Your task to perform on an android device: change the clock display to analog Image 0: 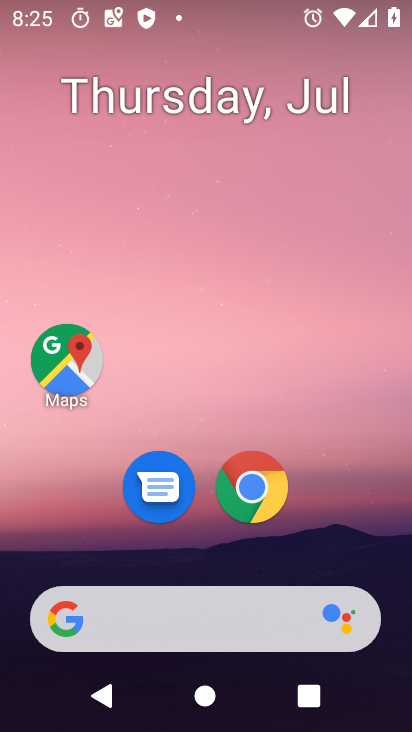
Step 0: drag from (263, 592) to (277, 251)
Your task to perform on an android device: change the clock display to analog Image 1: 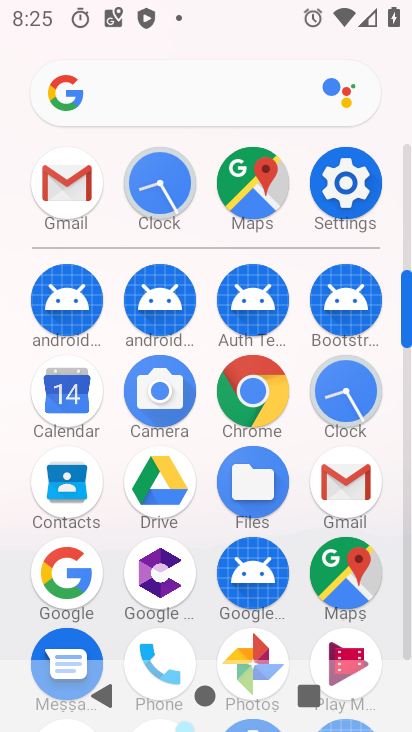
Step 1: click (344, 401)
Your task to perform on an android device: change the clock display to analog Image 2: 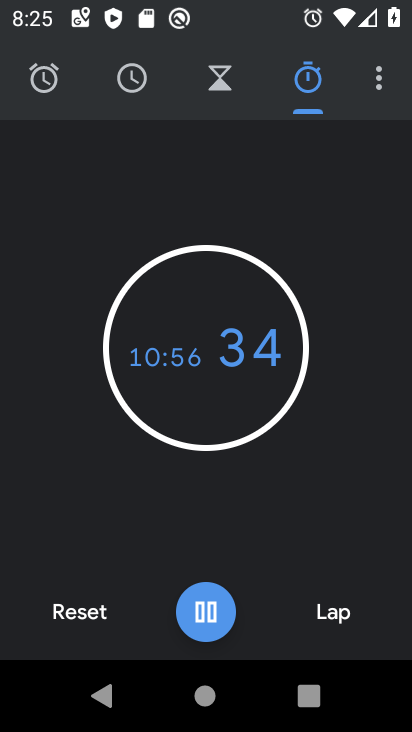
Step 2: click (375, 83)
Your task to perform on an android device: change the clock display to analog Image 3: 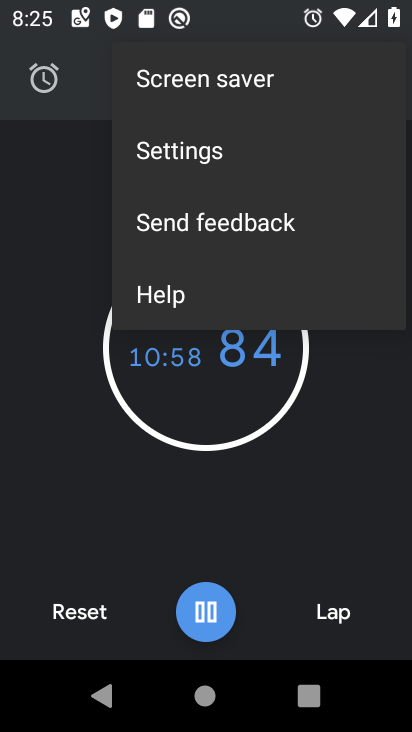
Step 3: click (196, 156)
Your task to perform on an android device: change the clock display to analog Image 4: 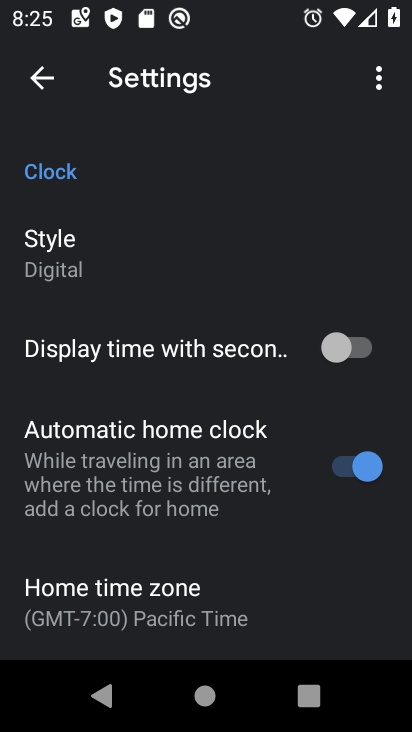
Step 4: click (74, 260)
Your task to perform on an android device: change the clock display to analog Image 5: 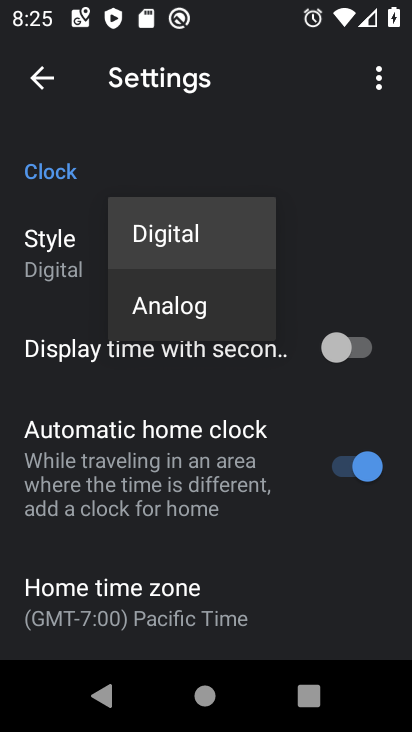
Step 5: click (182, 314)
Your task to perform on an android device: change the clock display to analog Image 6: 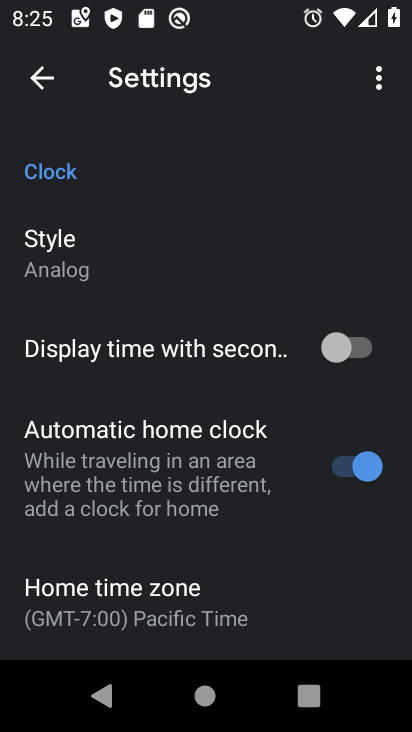
Step 6: task complete